Your task to perform on an android device: clear all cookies in the chrome app Image 0: 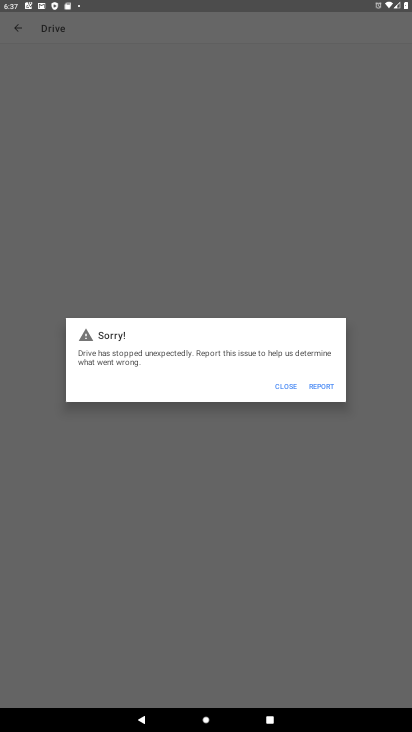
Step 0: press home button
Your task to perform on an android device: clear all cookies in the chrome app Image 1: 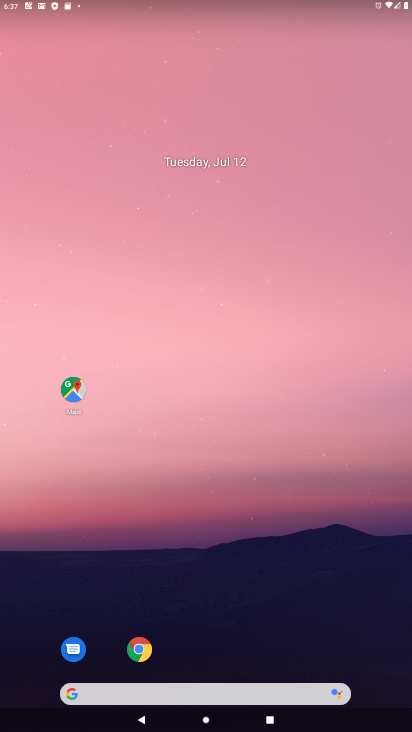
Step 1: click (139, 649)
Your task to perform on an android device: clear all cookies in the chrome app Image 2: 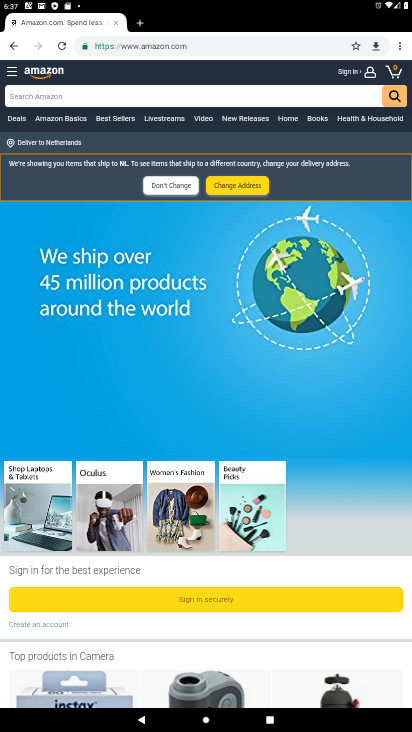
Step 2: click (400, 46)
Your task to perform on an android device: clear all cookies in the chrome app Image 3: 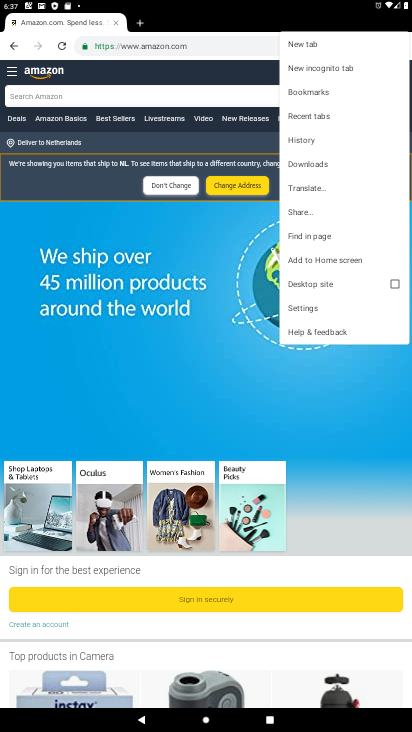
Step 3: click (316, 307)
Your task to perform on an android device: clear all cookies in the chrome app Image 4: 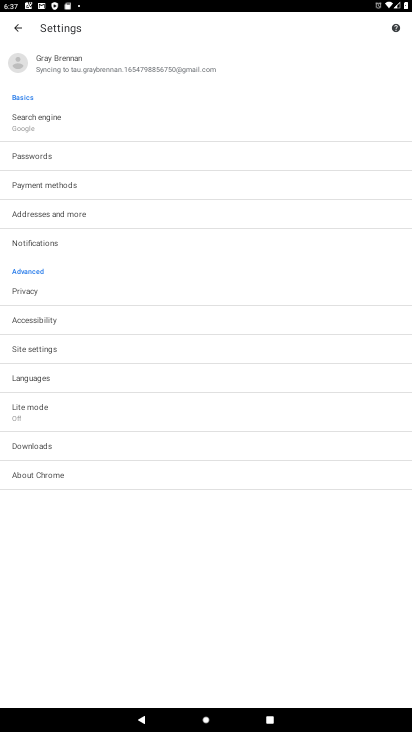
Step 4: click (24, 289)
Your task to perform on an android device: clear all cookies in the chrome app Image 5: 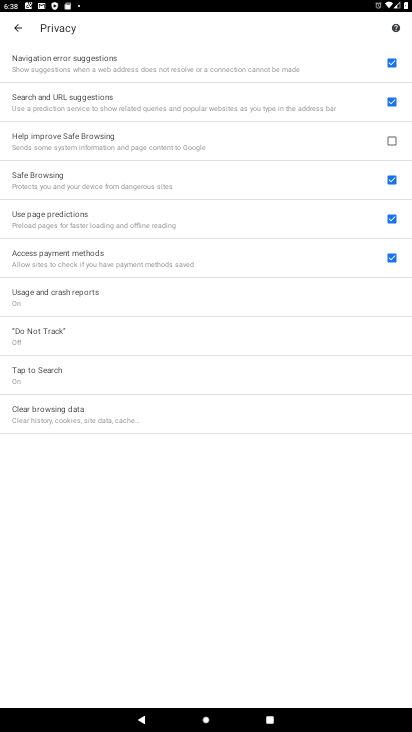
Step 5: click (93, 415)
Your task to perform on an android device: clear all cookies in the chrome app Image 6: 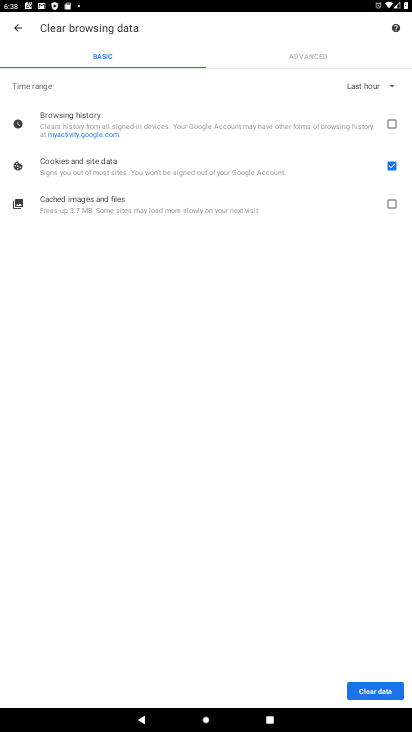
Step 6: click (369, 84)
Your task to perform on an android device: clear all cookies in the chrome app Image 7: 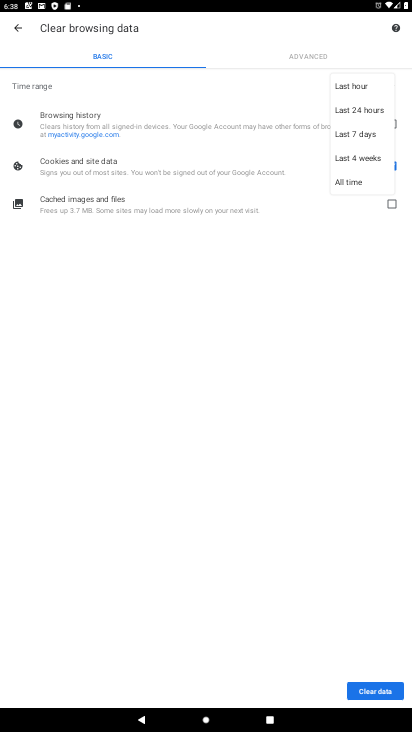
Step 7: click (351, 182)
Your task to perform on an android device: clear all cookies in the chrome app Image 8: 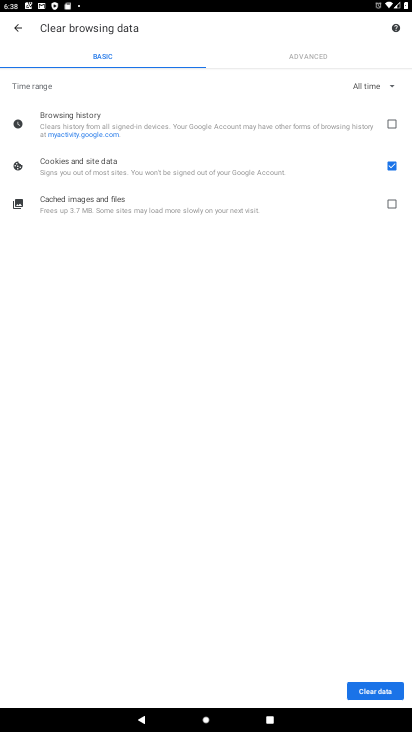
Step 8: click (379, 692)
Your task to perform on an android device: clear all cookies in the chrome app Image 9: 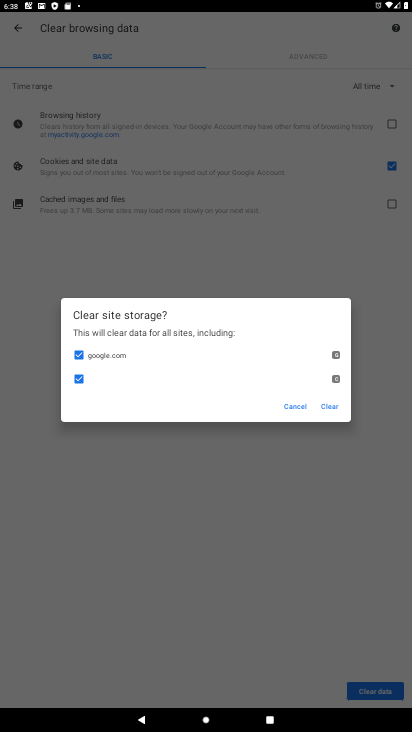
Step 9: click (335, 405)
Your task to perform on an android device: clear all cookies in the chrome app Image 10: 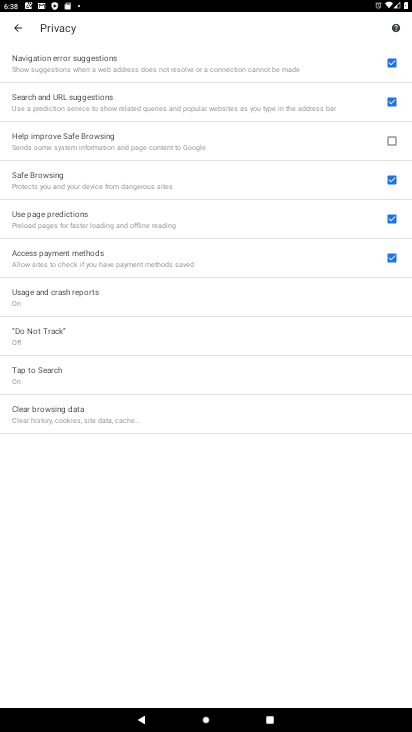
Step 10: task complete